Your task to perform on an android device: Open wifi settings Image 0: 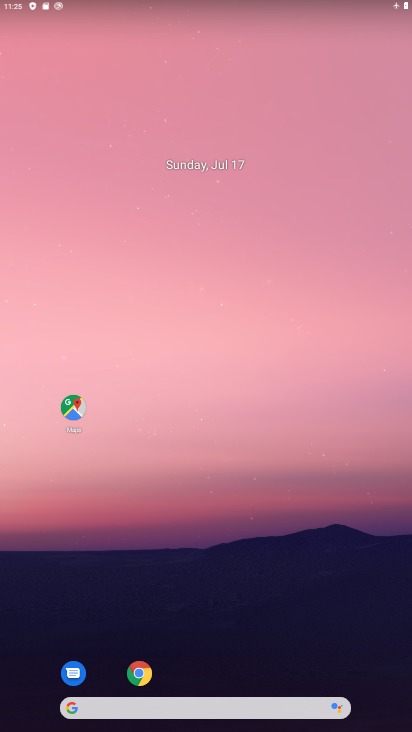
Step 0: drag from (303, 576) to (186, 0)
Your task to perform on an android device: Open wifi settings Image 1: 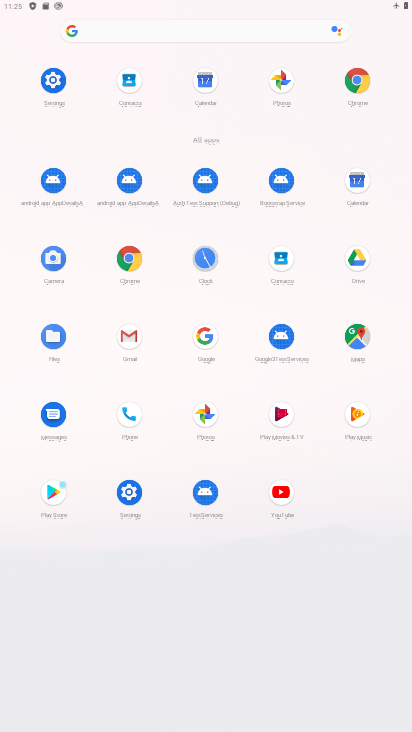
Step 1: click (125, 492)
Your task to perform on an android device: Open wifi settings Image 2: 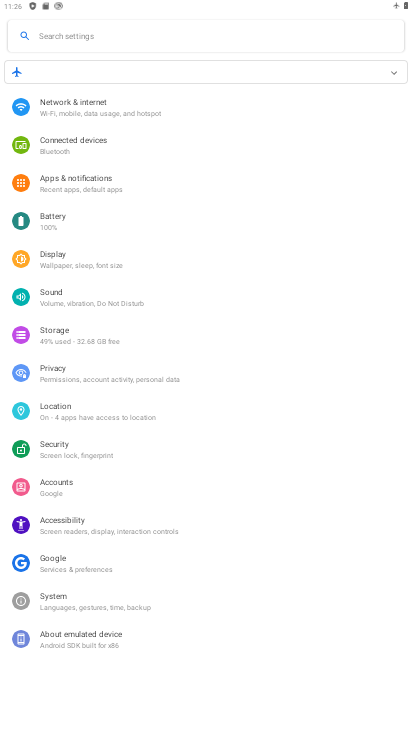
Step 2: click (82, 104)
Your task to perform on an android device: Open wifi settings Image 3: 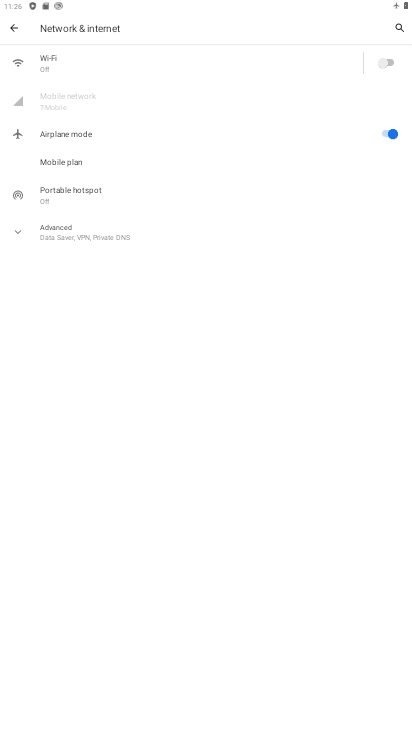
Step 3: click (98, 64)
Your task to perform on an android device: Open wifi settings Image 4: 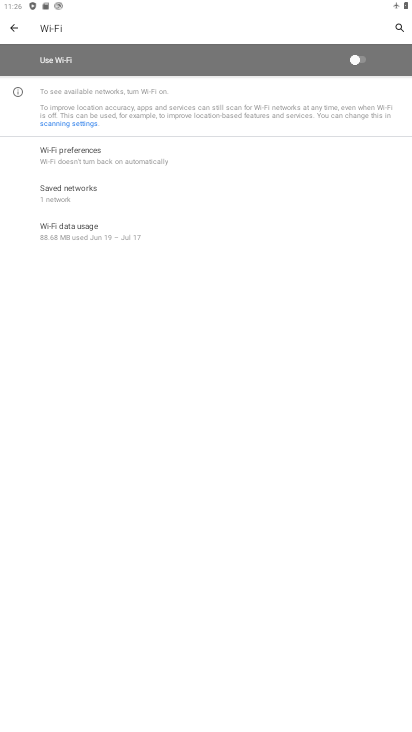
Step 4: task complete